Your task to perform on an android device: Do I have any events today? Image 0: 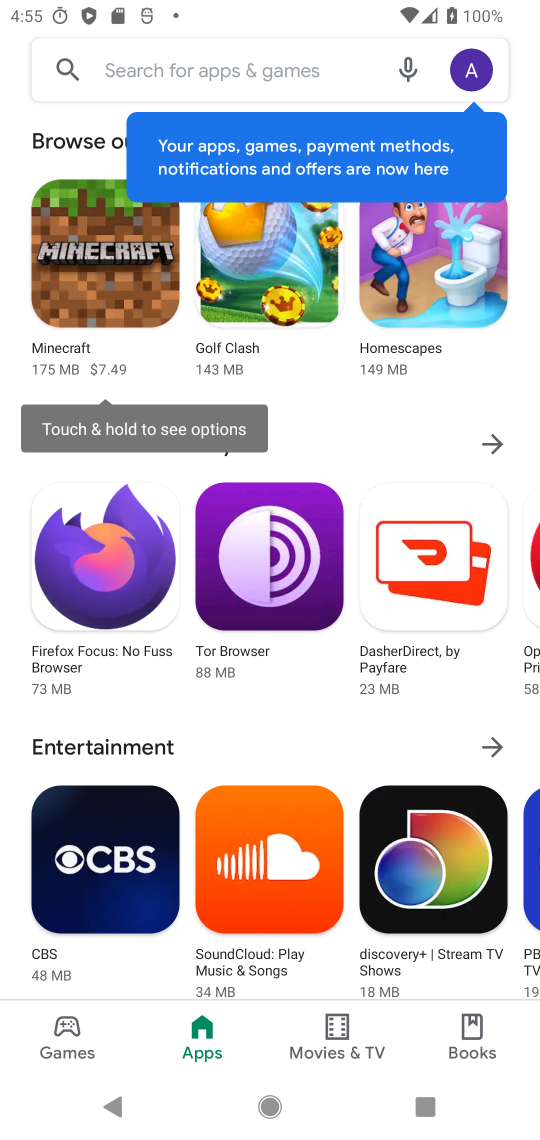
Step 0: press home button
Your task to perform on an android device: Do I have any events today? Image 1: 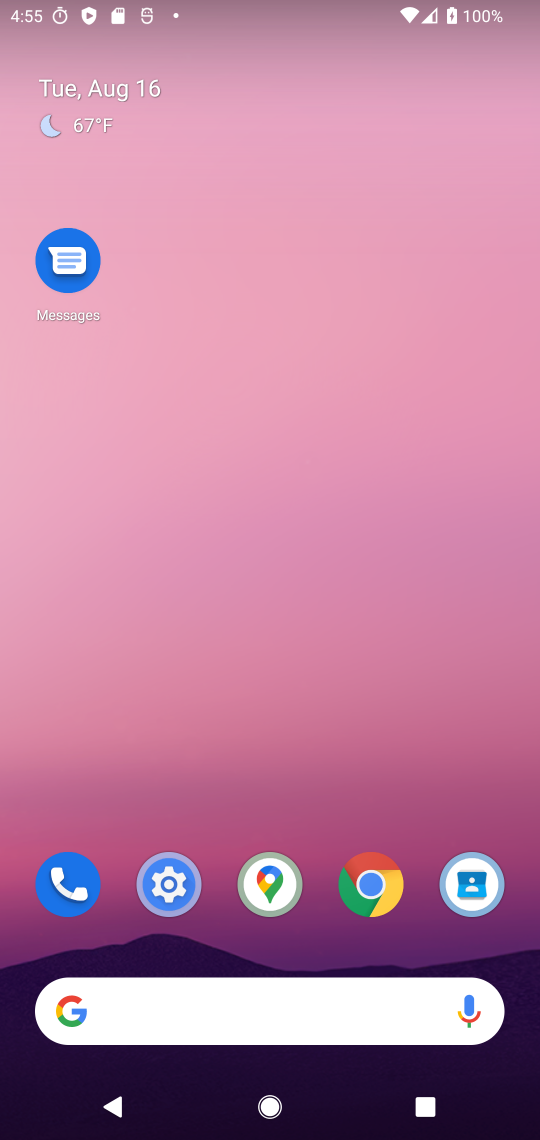
Step 1: drag from (45, 1106) to (490, 346)
Your task to perform on an android device: Do I have any events today? Image 2: 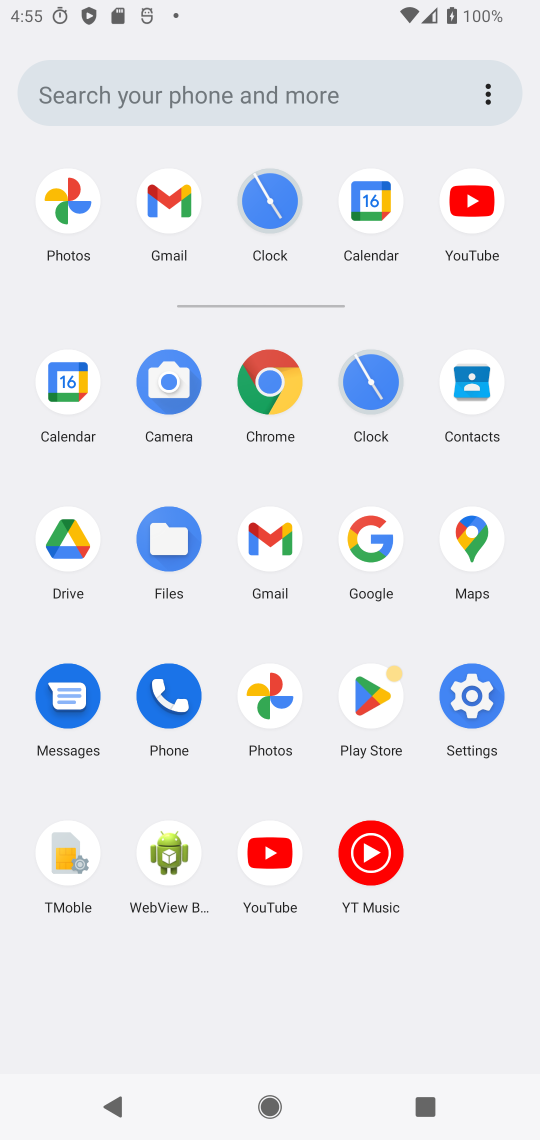
Step 2: click (82, 395)
Your task to perform on an android device: Do I have any events today? Image 3: 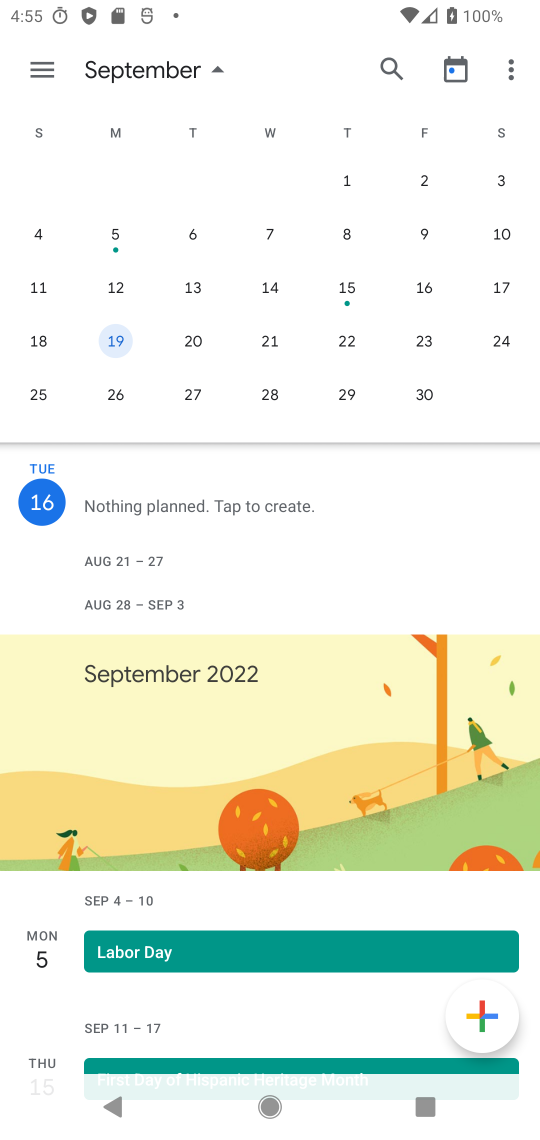
Step 3: task complete